Your task to perform on an android device: Search for the best rated mattress topper on Target. Image 0: 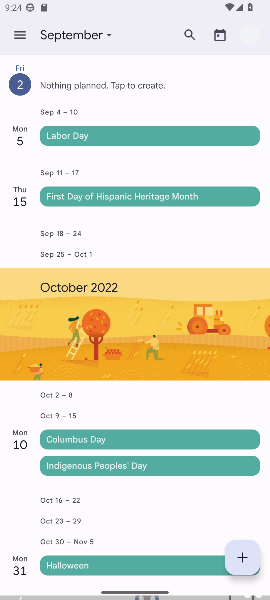
Step 0: press home button
Your task to perform on an android device: Search for the best rated mattress topper on Target. Image 1: 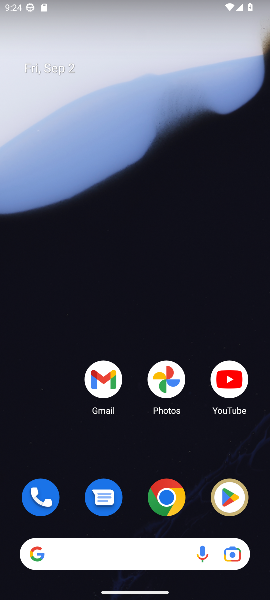
Step 1: drag from (123, 508) to (99, 102)
Your task to perform on an android device: Search for the best rated mattress topper on Target. Image 2: 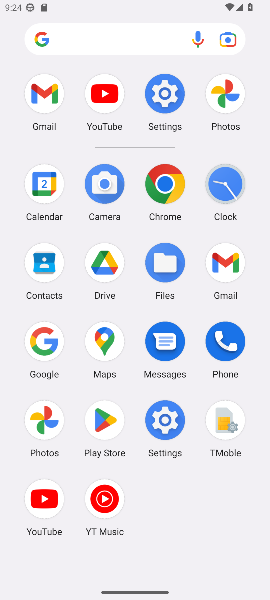
Step 2: click (40, 348)
Your task to perform on an android device: Search for the best rated mattress topper on Target. Image 3: 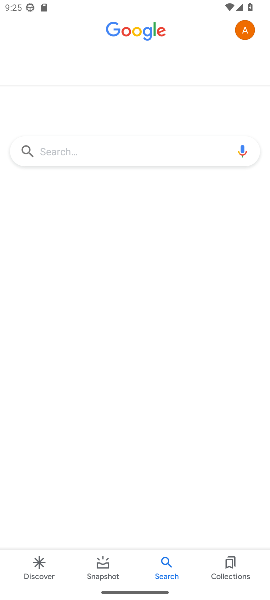
Step 3: click (127, 155)
Your task to perform on an android device: Search for the best rated mattress topper on Target. Image 4: 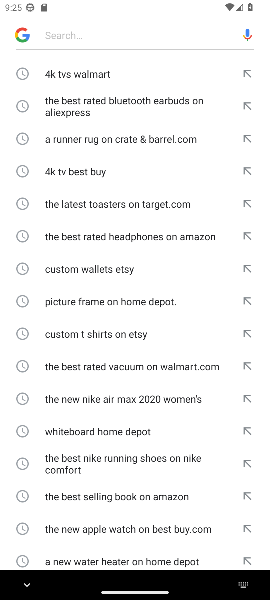
Step 4: type " the best rated mattress topper on Target."
Your task to perform on an android device: Search for the best rated mattress topper on Target. Image 5: 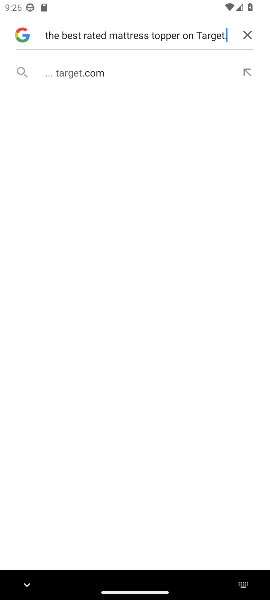
Step 5: click (93, 68)
Your task to perform on an android device: Search for the best rated mattress topper on Target. Image 6: 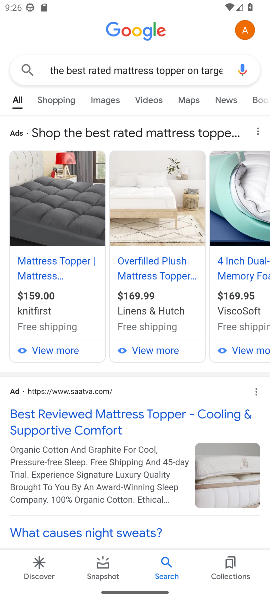
Step 6: task complete